Your task to perform on an android device: open app "Google Photos" (install if not already installed) Image 0: 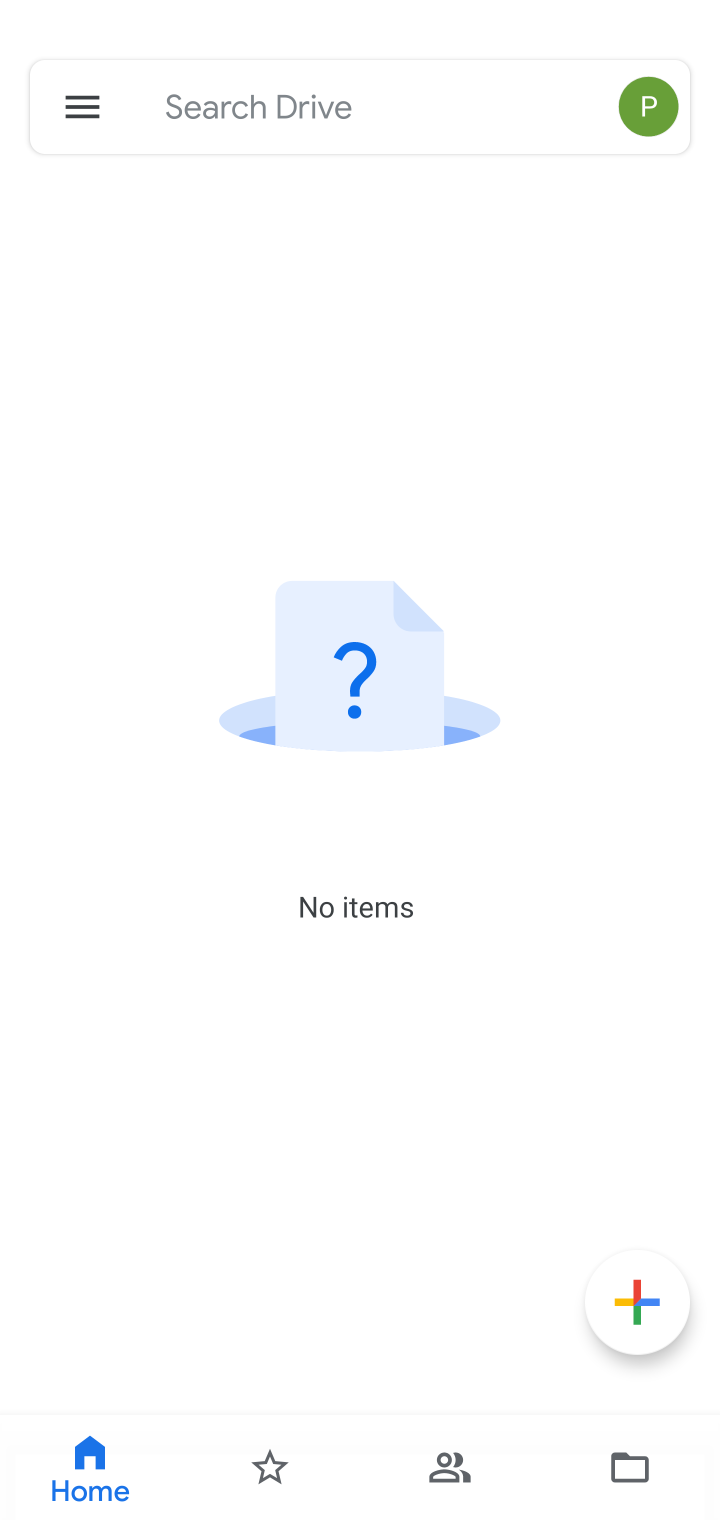
Step 0: press home button
Your task to perform on an android device: open app "Google Photos" (install if not already installed) Image 1: 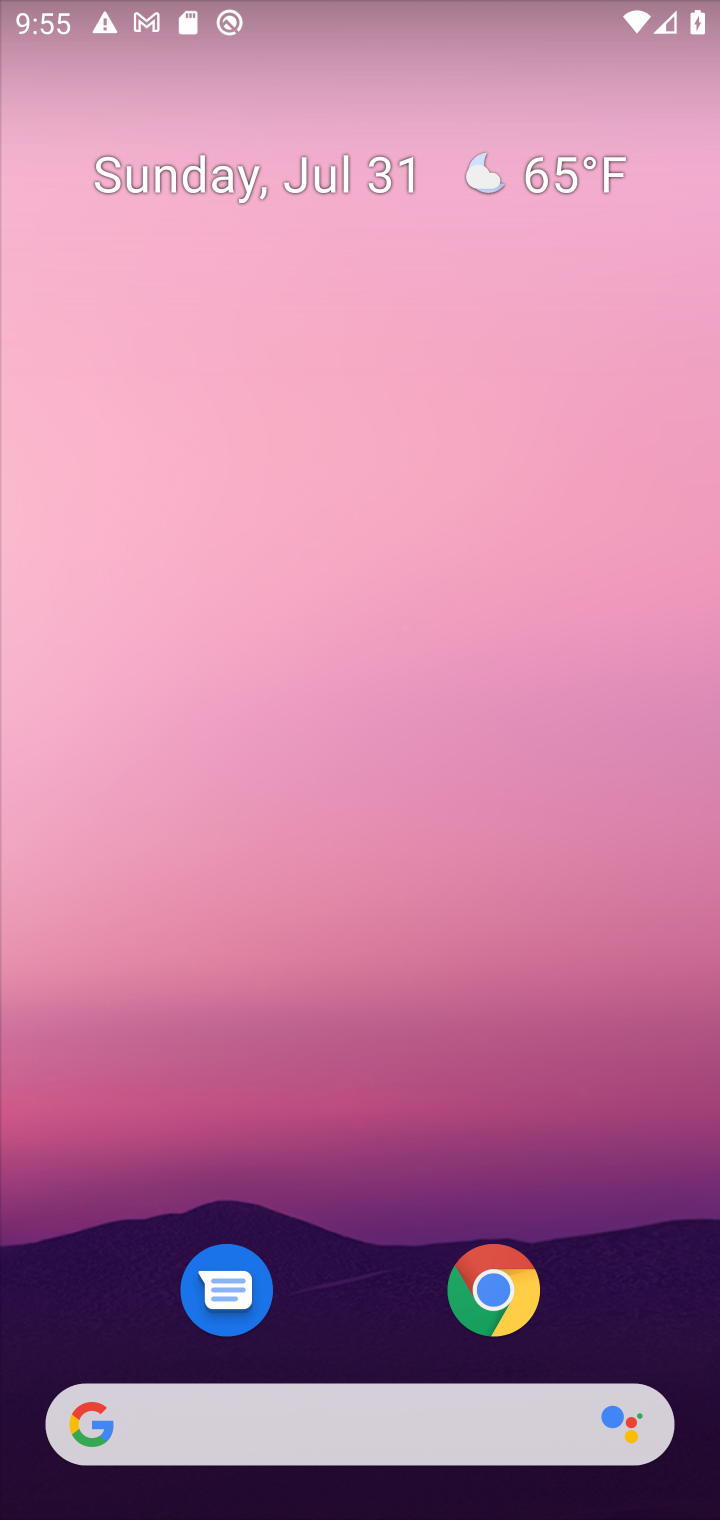
Step 1: drag from (589, 1092) to (496, 103)
Your task to perform on an android device: open app "Google Photos" (install if not already installed) Image 2: 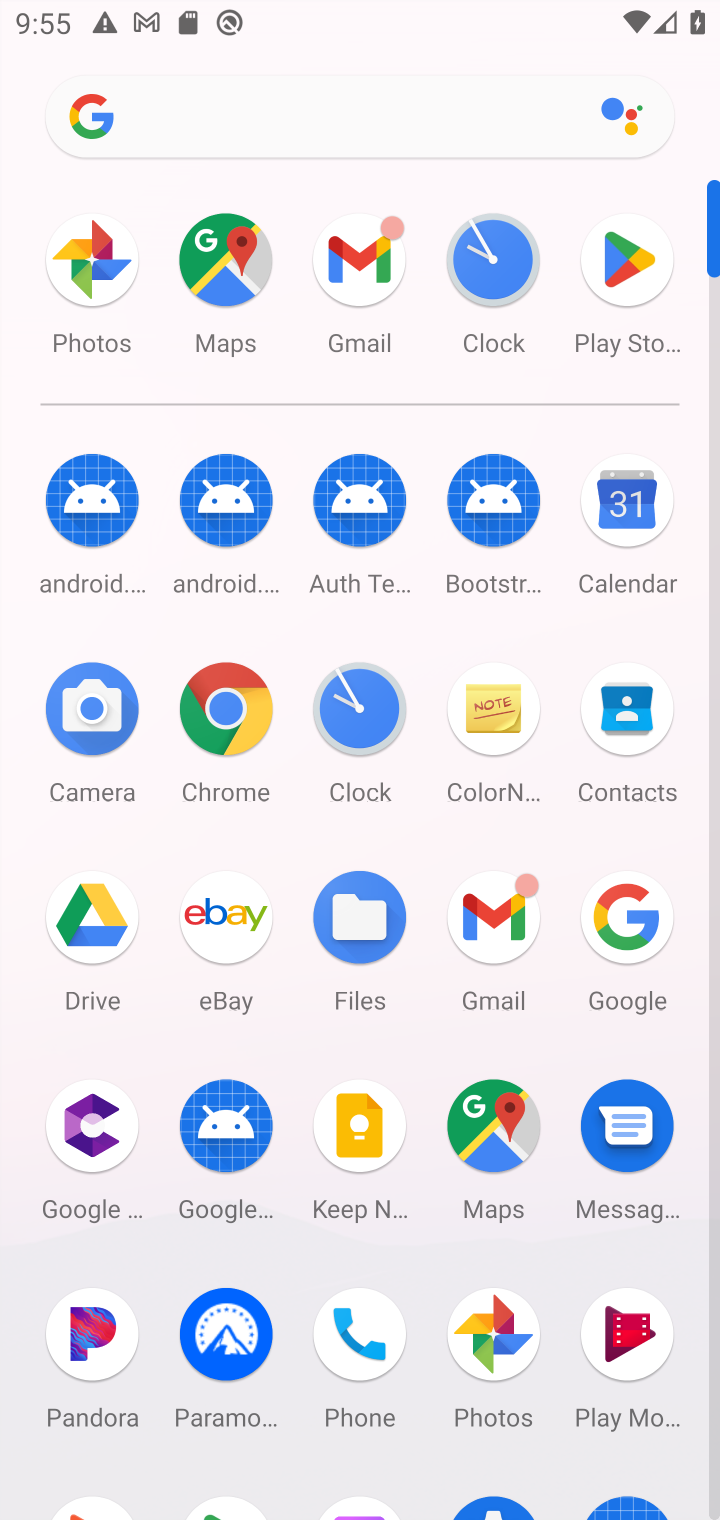
Step 2: click (632, 289)
Your task to perform on an android device: open app "Google Photos" (install if not already installed) Image 3: 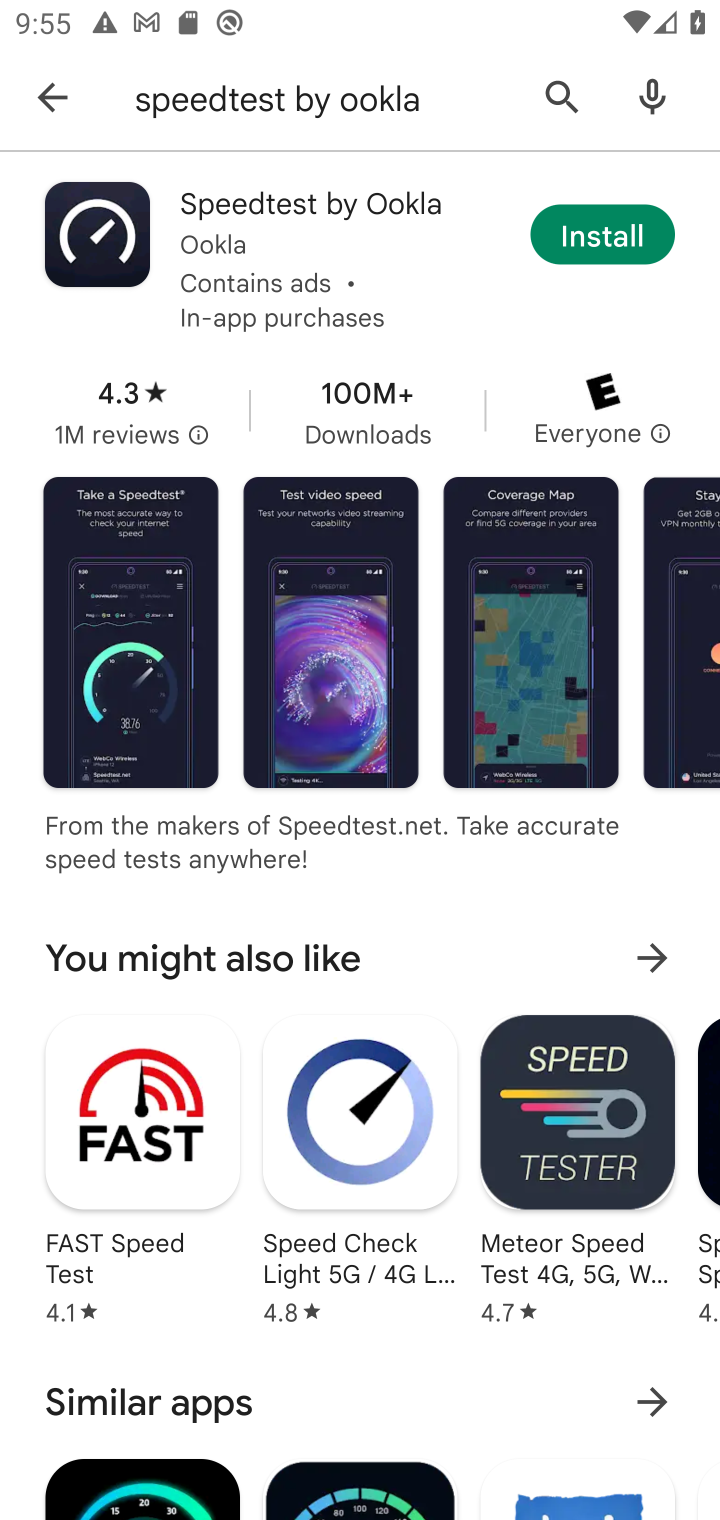
Step 3: click (565, 82)
Your task to perform on an android device: open app "Google Photos" (install if not already installed) Image 4: 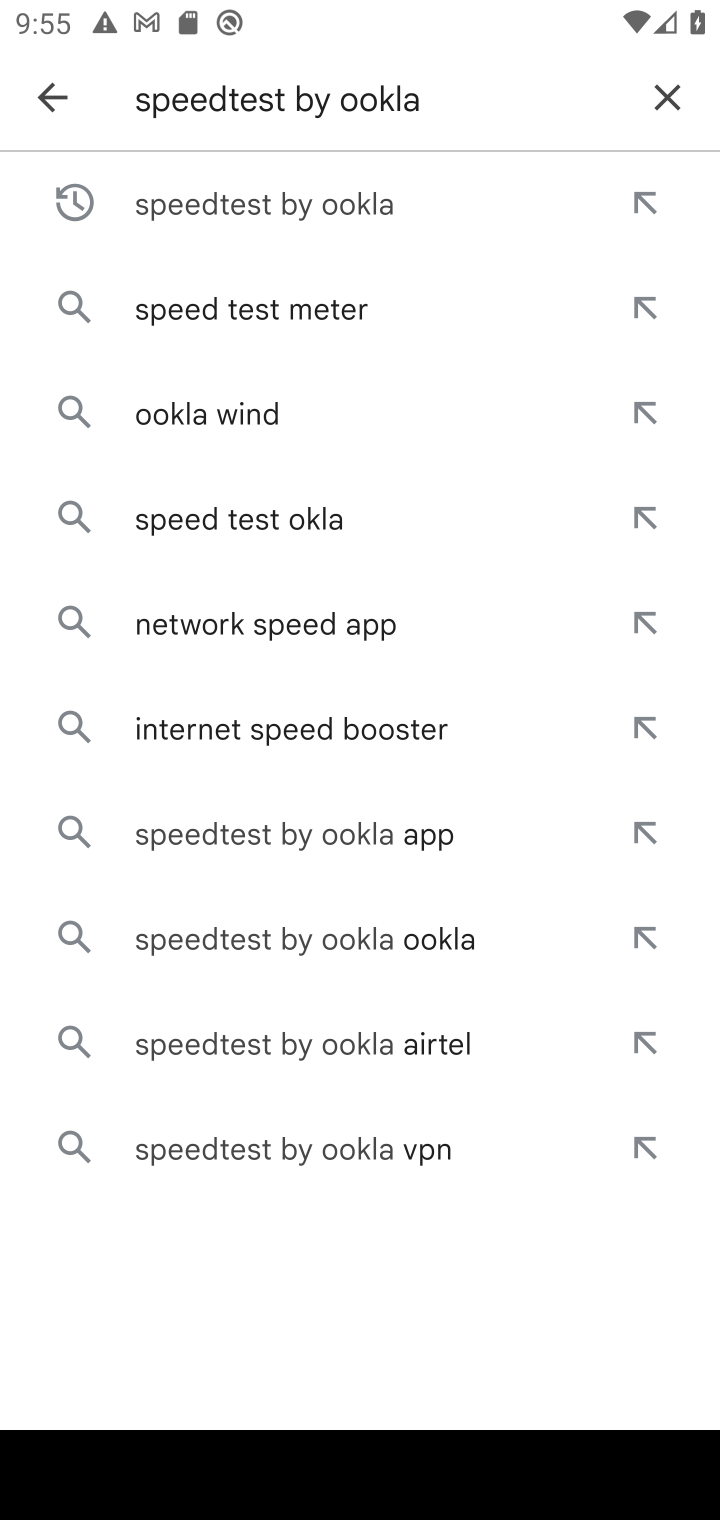
Step 4: click (657, 109)
Your task to perform on an android device: open app "Google Photos" (install if not already installed) Image 5: 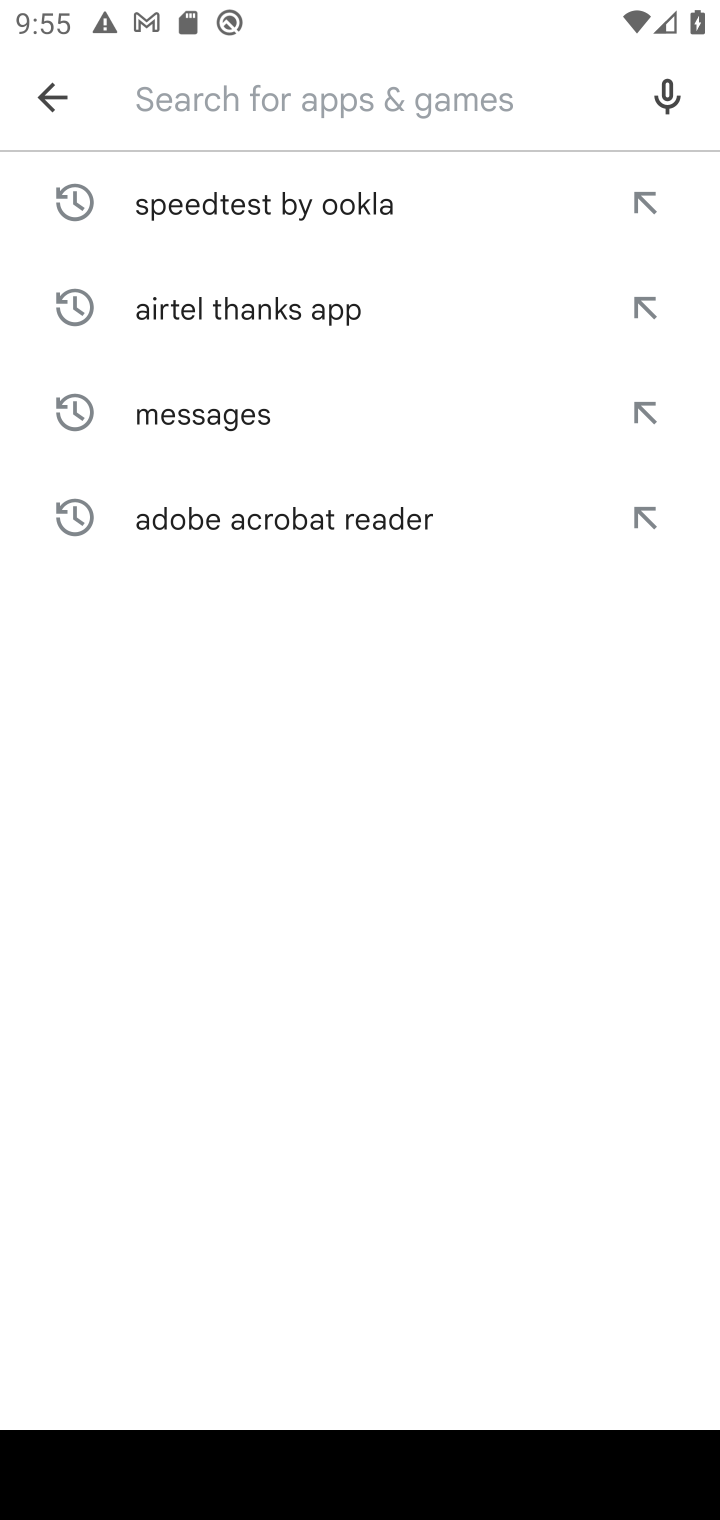
Step 5: type "Google Photos"
Your task to perform on an android device: open app "Google Photos" (install if not already installed) Image 6: 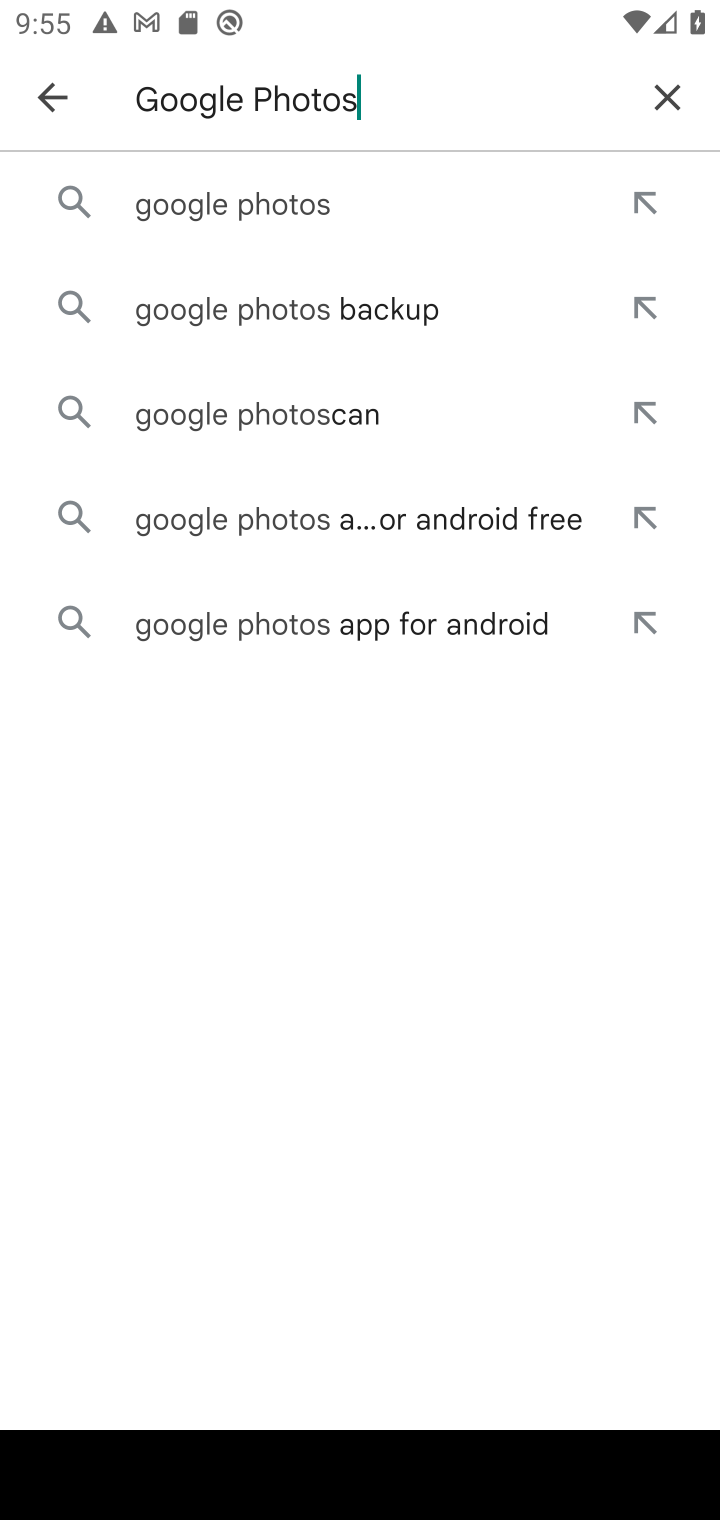
Step 6: click (253, 193)
Your task to perform on an android device: open app "Google Photos" (install if not already installed) Image 7: 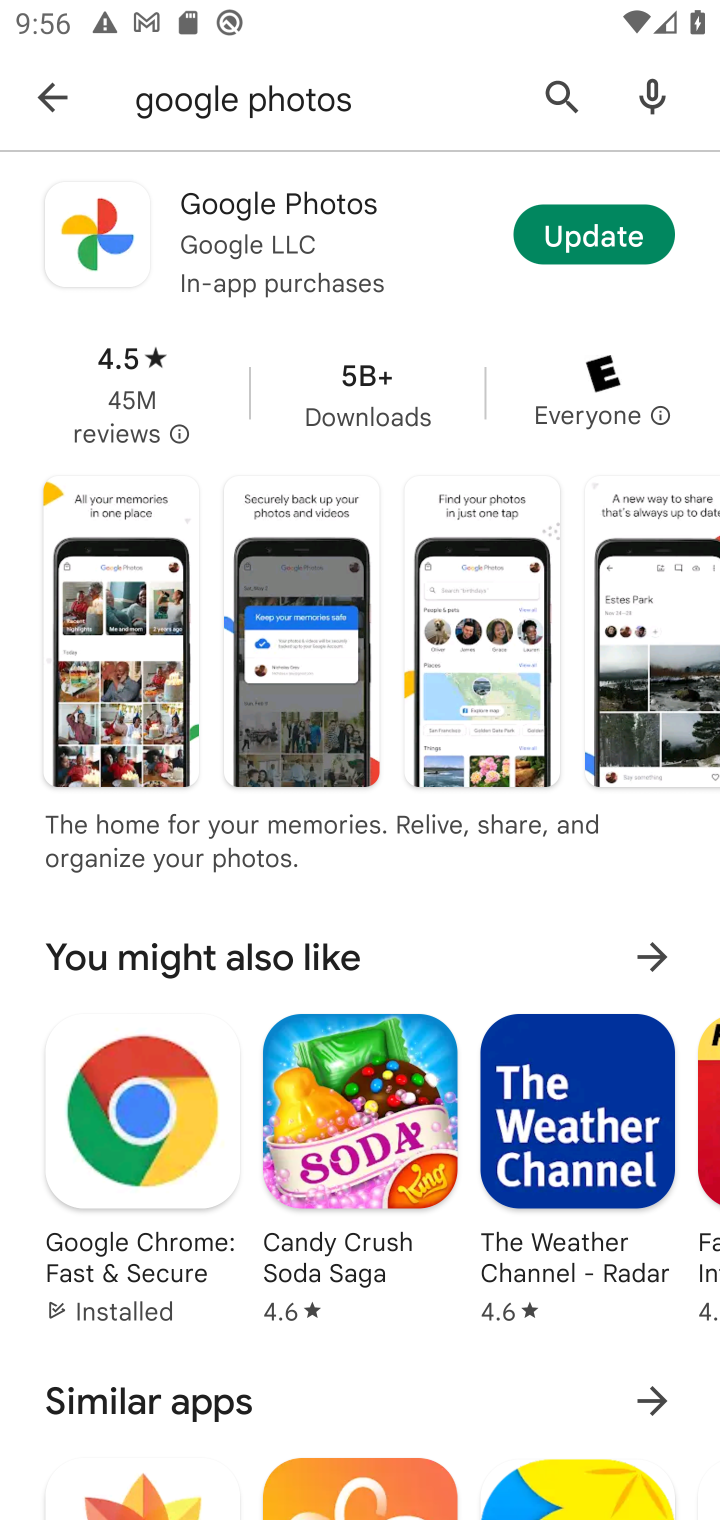
Step 7: click (600, 233)
Your task to perform on an android device: open app "Google Photos" (install if not already installed) Image 8: 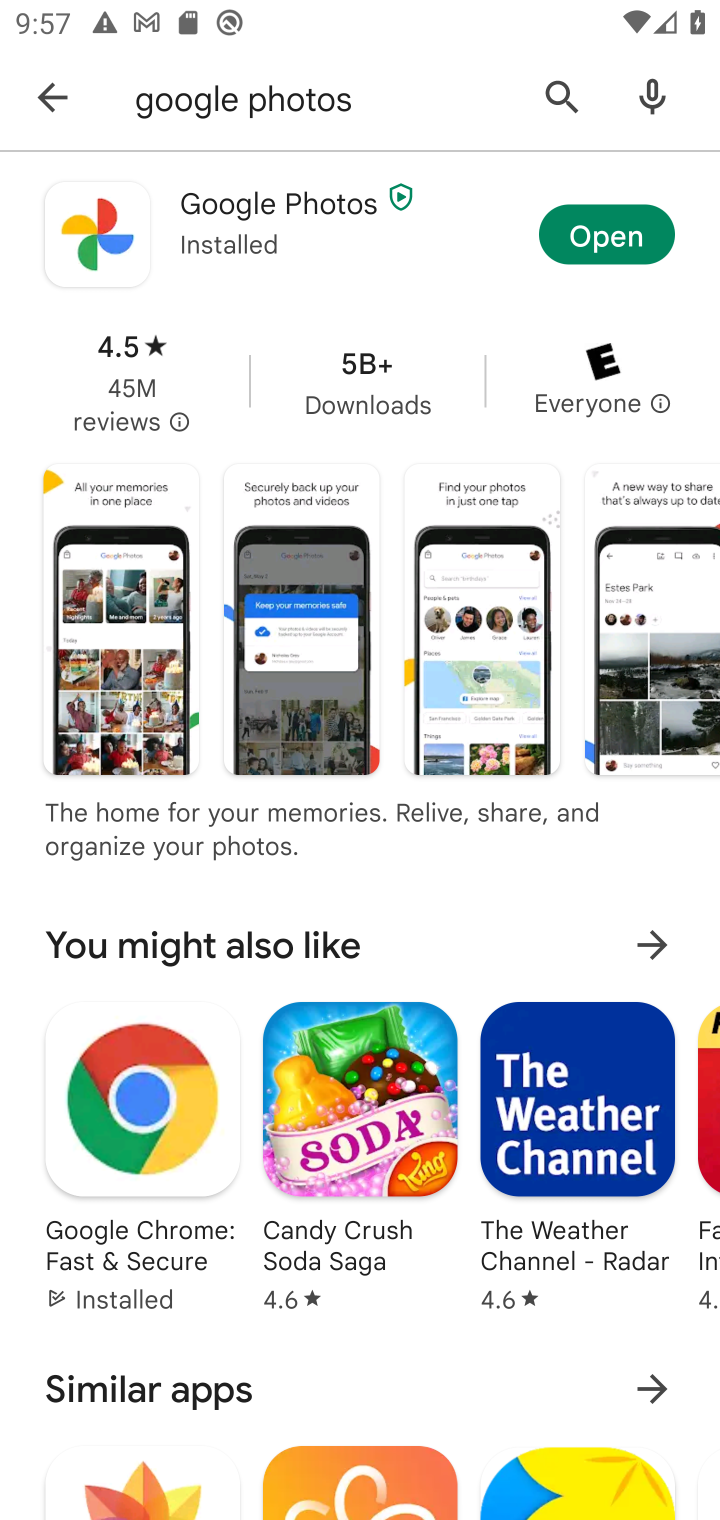
Step 8: click (632, 226)
Your task to perform on an android device: open app "Google Photos" (install if not already installed) Image 9: 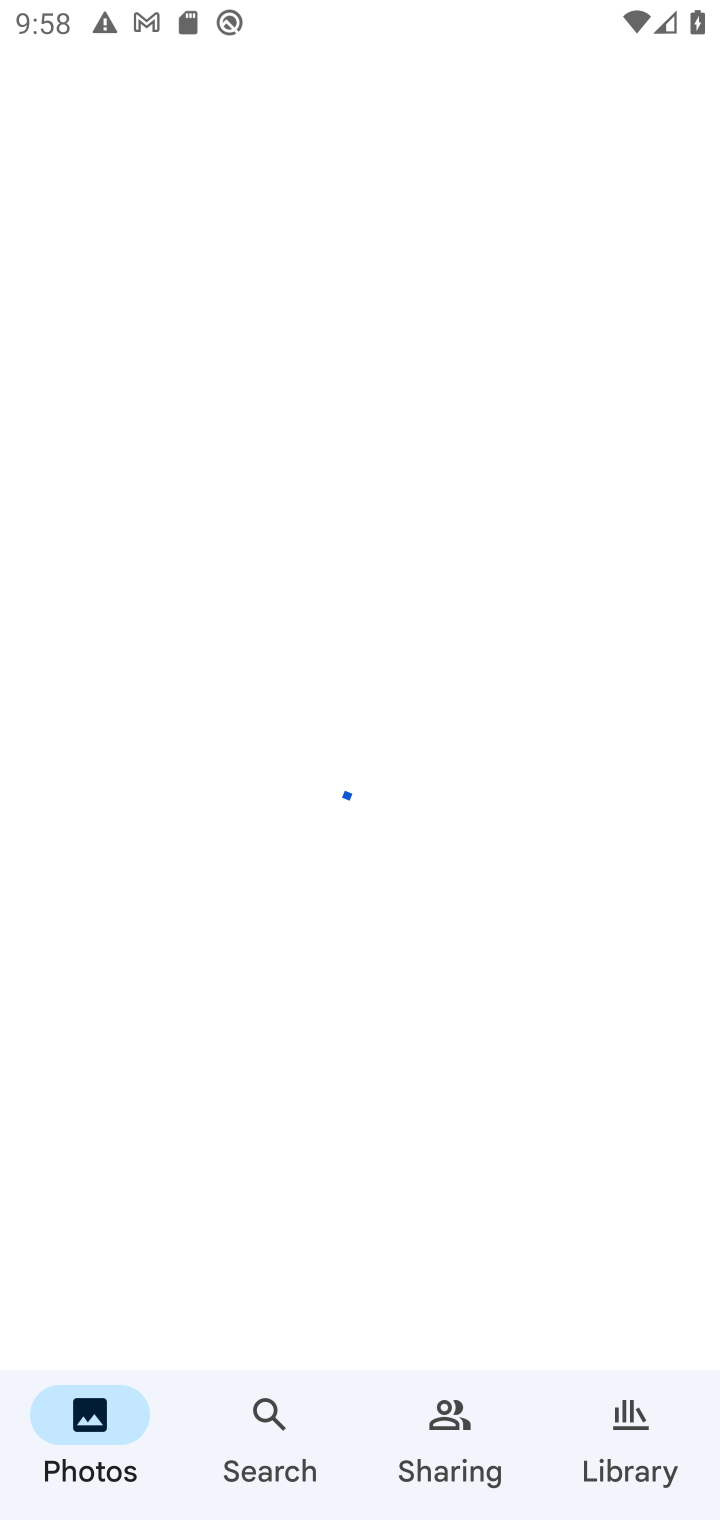
Step 9: task complete